Your task to perform on an android device: turn notification dots off Image 0: 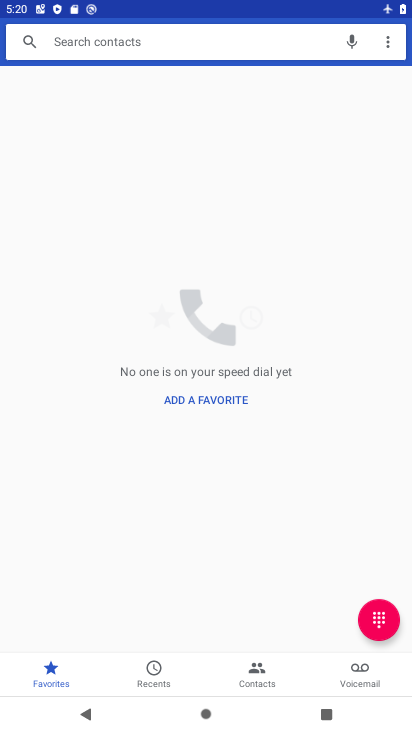
Step 0: press back button
Your task to perform on an android device: turn notification dots off Image 1: 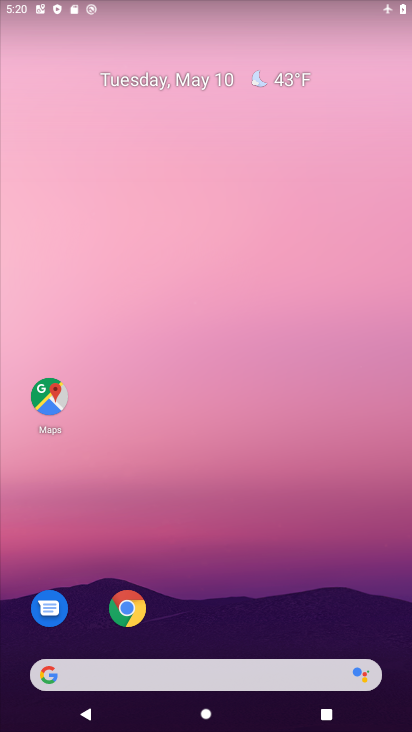
Step 1: drag from (223, 497) to (345, 40)
Your task to perform on an android device: turn notification dots off Image 2: 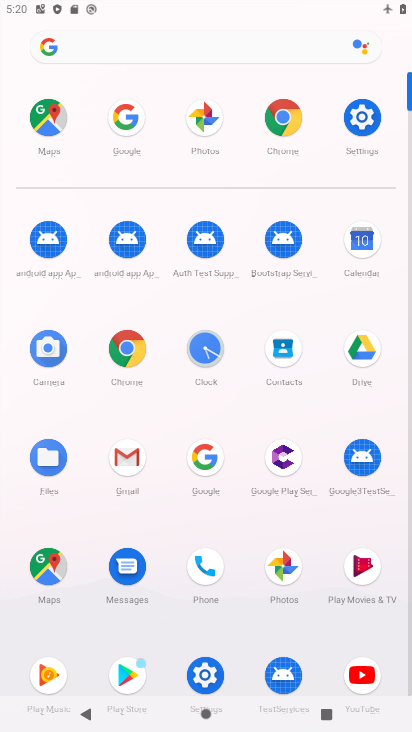
Step 2: click (351, 99)
Your task to perform on an android device: turn notification dots off Image 3: 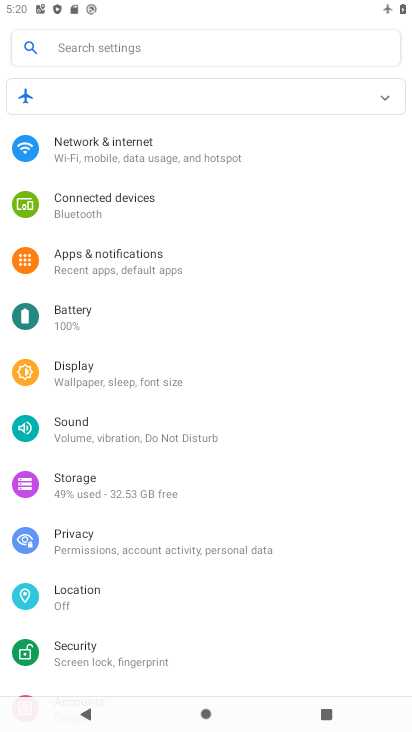
Step 3: click (110, 265)
Your task to perform on an android device: turn notification dots off Image 4: 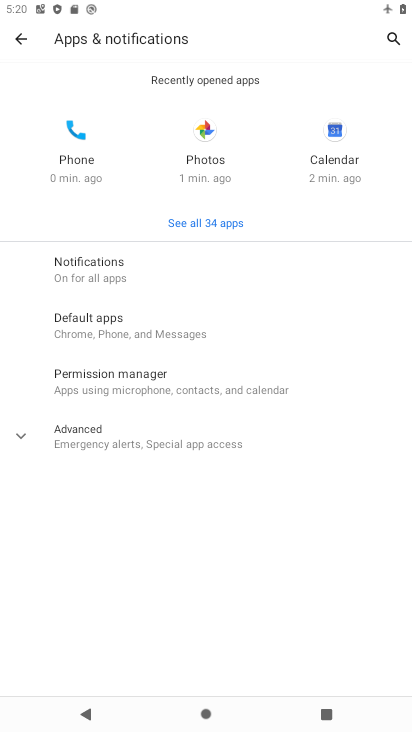
Step 4: click (152, 272)
Your task to perform on an android device: turn notification dots off Image 5: 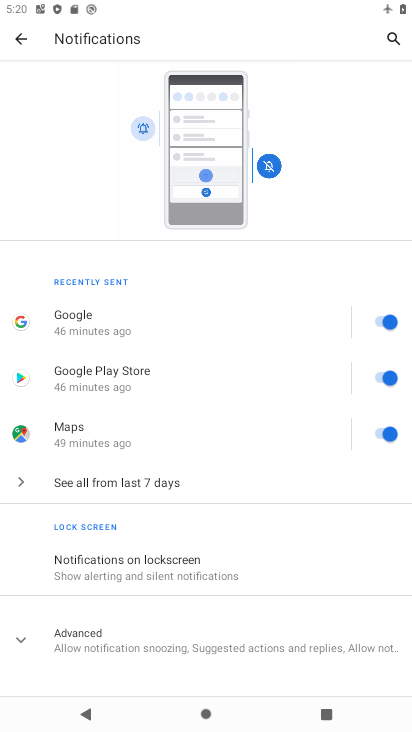
Step 5: drag from (144, 629) to (240, 255)
Your task to perform on an android device: turn notification dots off Image 6: 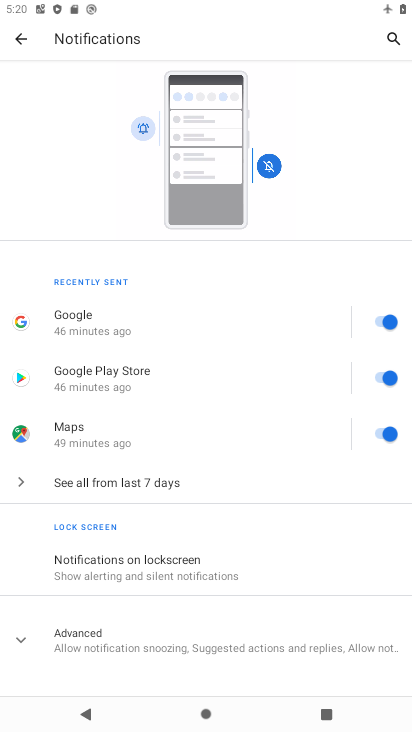
Step 6: drag from (159, 580) to (220, 197)
Your task to perform on an android device: turn notification dots off Image 7: 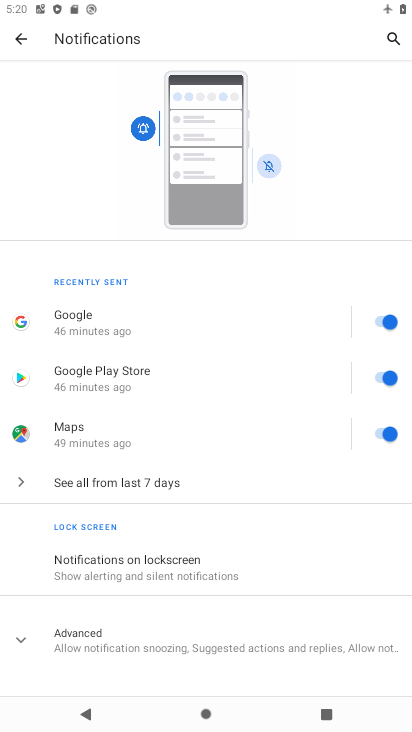
Step 7: click (124, 654)
Your task to perform on an android device: turn notification dots off Image 8: 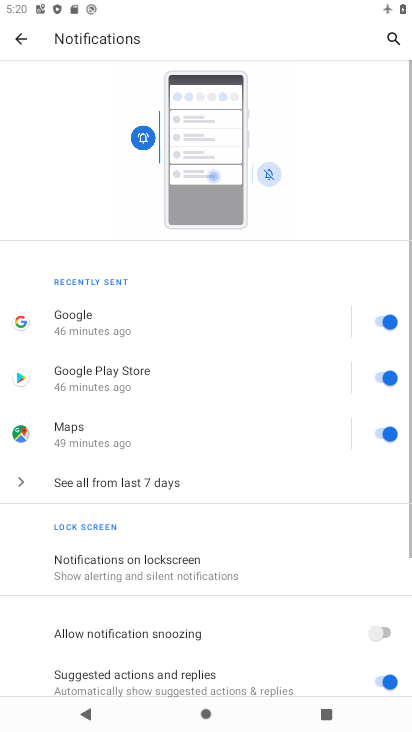
Step 8: drag from (133, 638) to (233, 259)
Your task to perform on an android device: turn notification dots off Image 9: 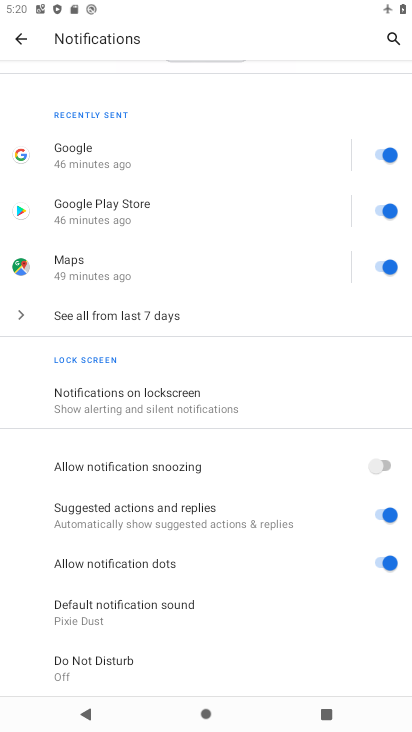
Step 9: click (391, 557)
Your task to perform on an android device: turn notification dots off Image 10: 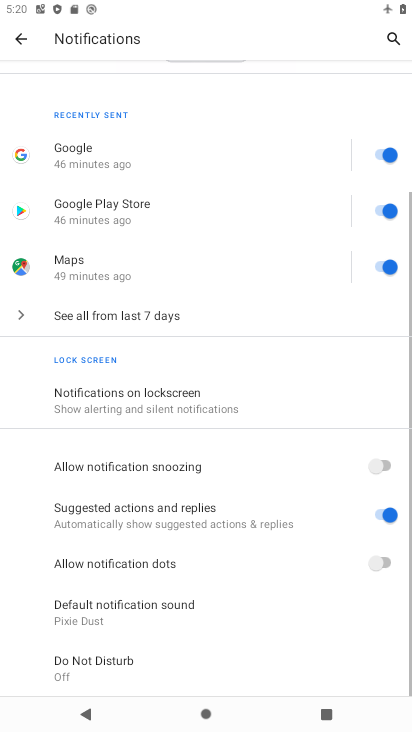
Step 10: task complete